Your task to perform on an android device: change notifications settings Image 0: 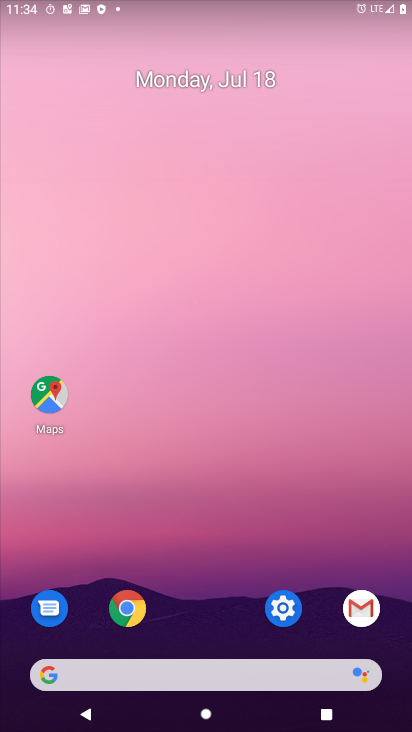
Step 0: click (287, 610)
Your task to perform on an android device: change notifications settings Image 1: 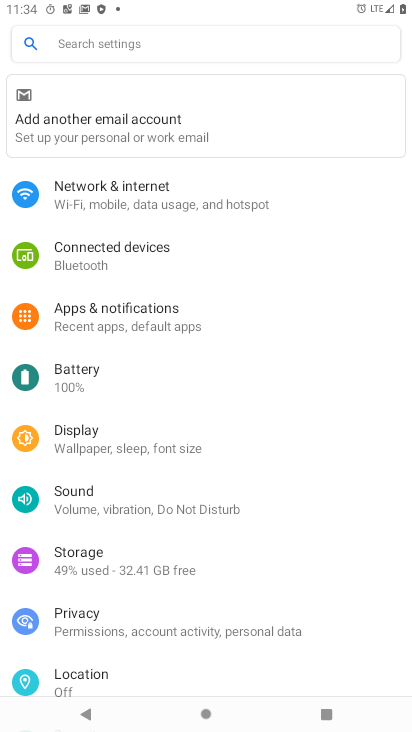
Step 1: click (100, 48)
Your task to perform on an android device: change notifications settings Image 2: 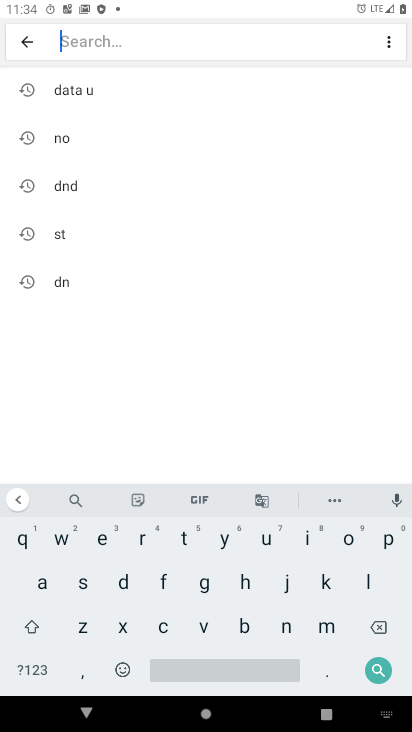
Step 2: click (96, 143)
Your task to perform on an android device: change notifications settings Image 3: 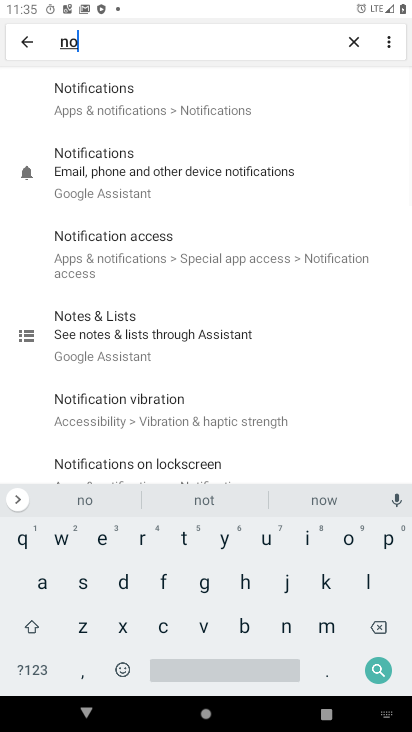
Step 3: click (125, 113)
Your task to perform on an android device: change notifications settings Image 4: 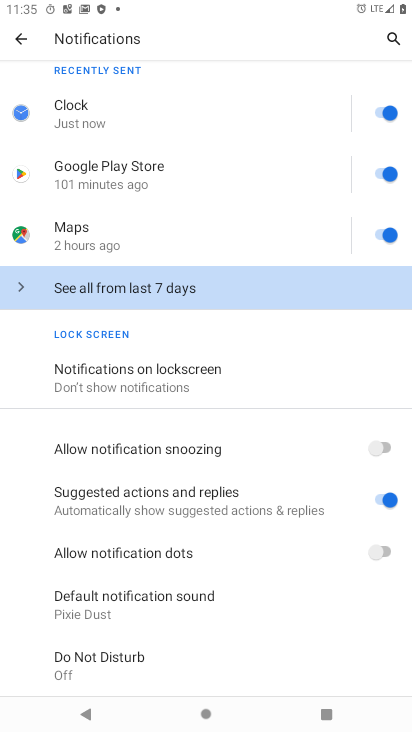
Step 4: click (109, 379)
Your task to perform on an android device: change notifications settings Image 5: 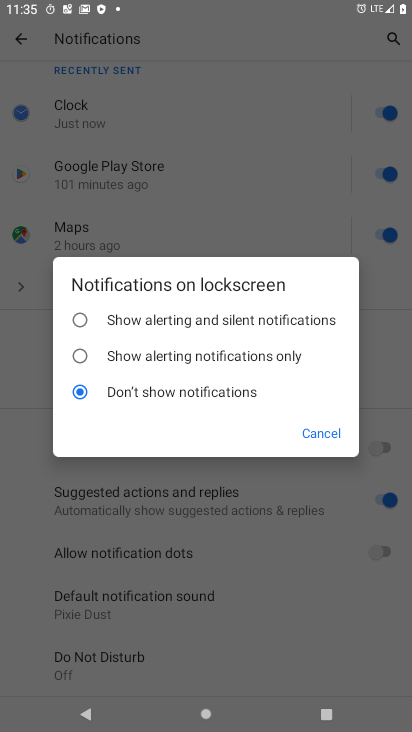
Step 5: click (252, 321)
Your task to perform on an android device: change notifications settings Image 6: 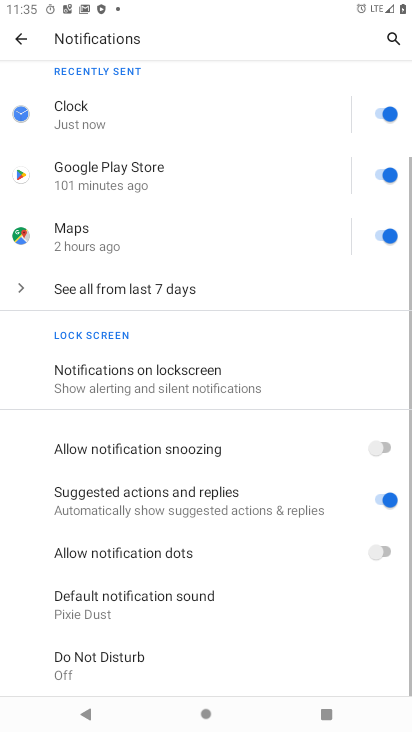
Step 6: task complete